Your task to perform on an android device: delete browsing data in the chrome app Image 0: 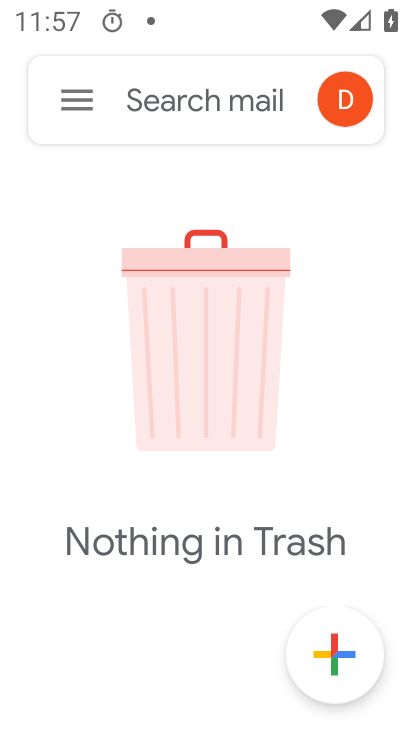
Step 0: press home button
Your task to perform on an android device: delete browsing data in the chrome app Image 1: 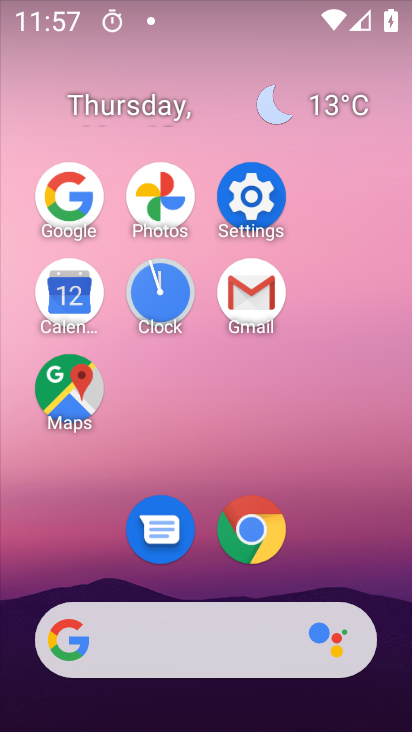
Step 1: click (262, 548)
Your task to perform on an android device: delete browsing data in the chrome app Image 2: 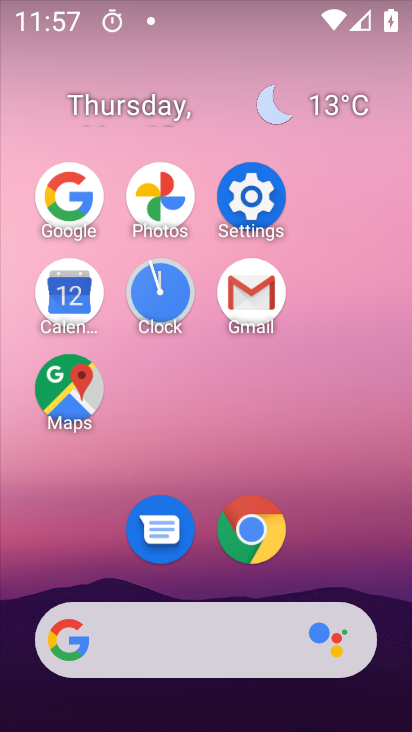
Step 2: click (255, 538)
Your task to perform on an android device: delete browsing data in the chrome app Image 3: 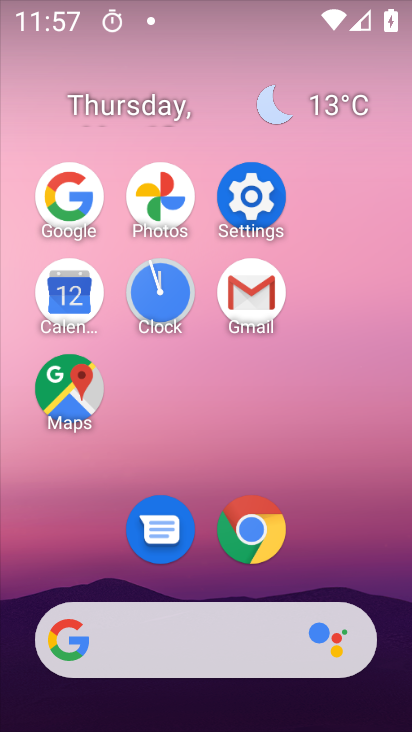
Step 3: click (245, 528)
Your task to perform on an android device: delete browsing data in the chrome app Image 4: 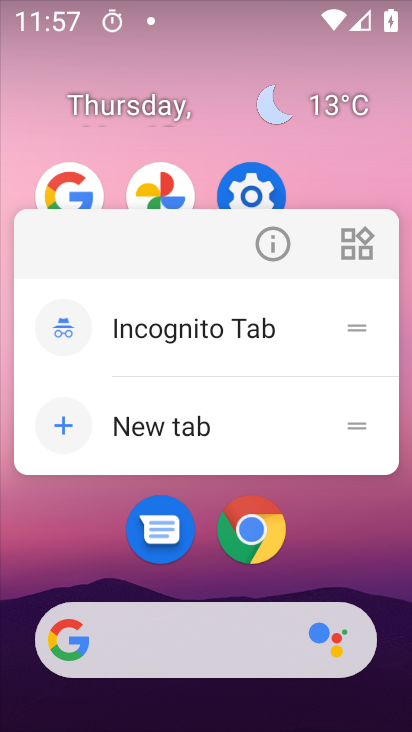
Step 4: click (254, 524)
Your task to perform on an android device: delete browsing data in the chrome app Image 5: 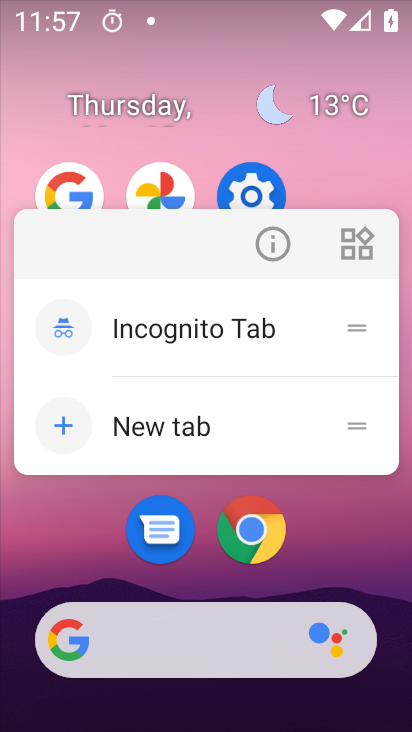
Step 5: click (254, 524)
Your task to perform on an android device: delete browsing data in the chrome app Image 6: 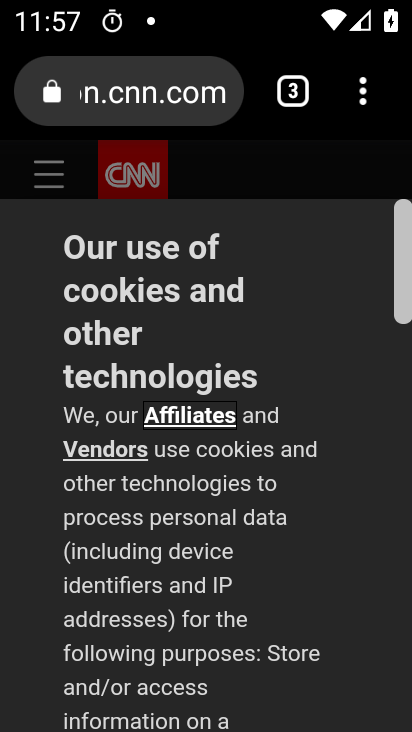
Step 6: click (360, 88)
Your task to perform on an android device: delete browsing data in the chrome app Image 7: 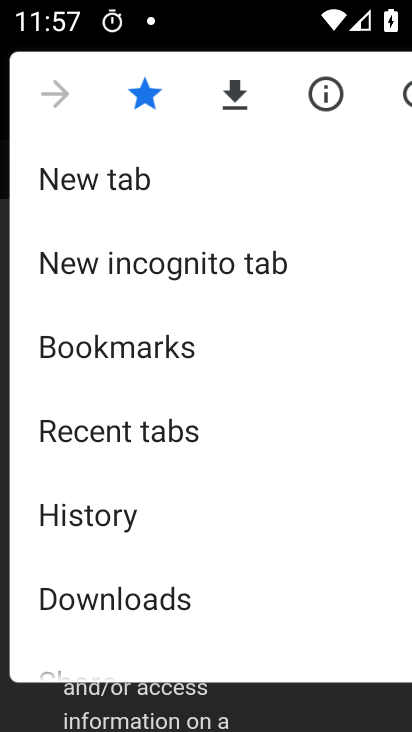
Step 7: drag from (266, 567) to (264, 76)
Your task to perform on an android device: delete browsing data in the chrome app Image 8: 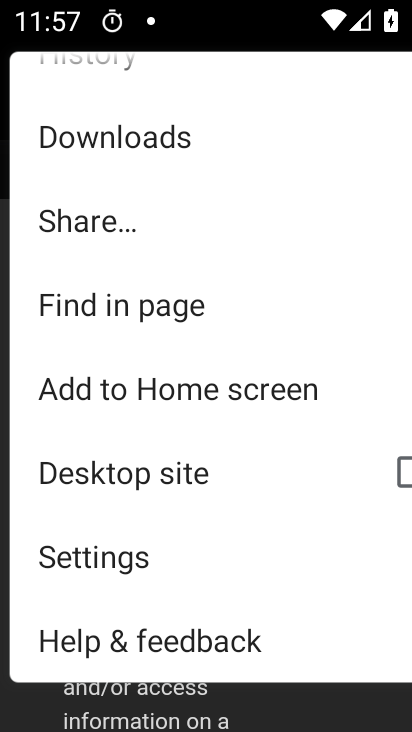
Step 8: click (232, 569)
Your task to perform on an android device: delete browsing data in the chrome app Image 9: 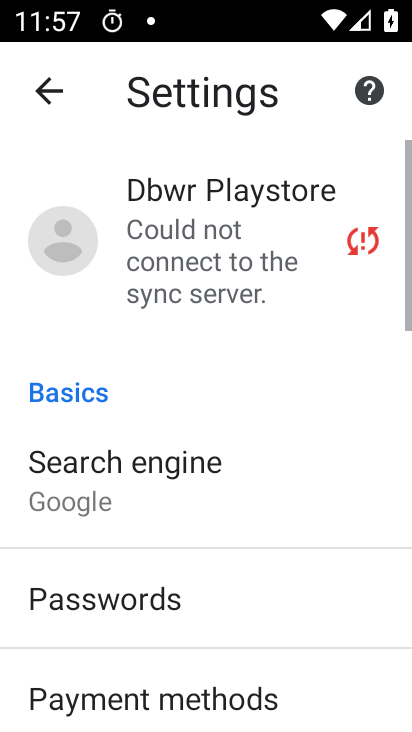
Step 9: drag from (232, 566) to (236, 133)
Your task to perform on an android device: delete browsing data in the chrome app Image 10: 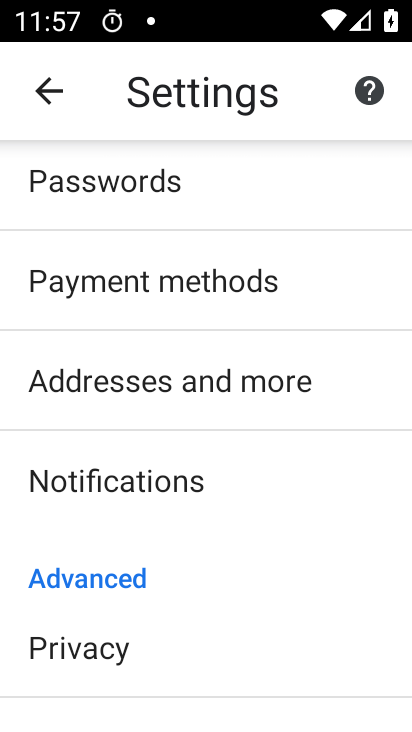
Step 10: click (165, 649)
Your task to perform on an android device: delete browsing data in the chrome app Image 11: 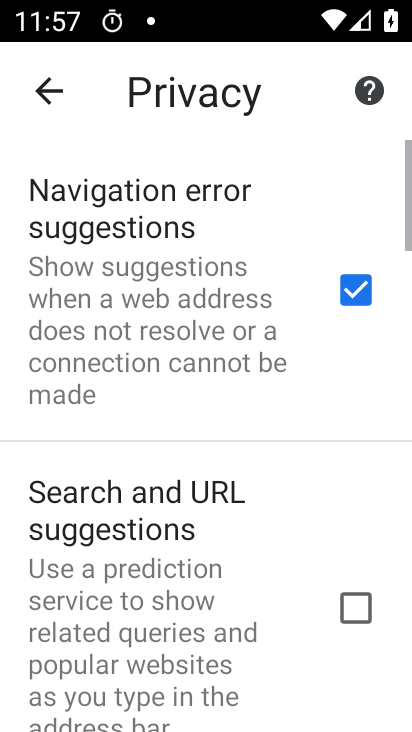
Step 11: drag from (165, 649) to (201, 124)
Your task to perform on an android device: delete browsing data in the chrome app Image 12: 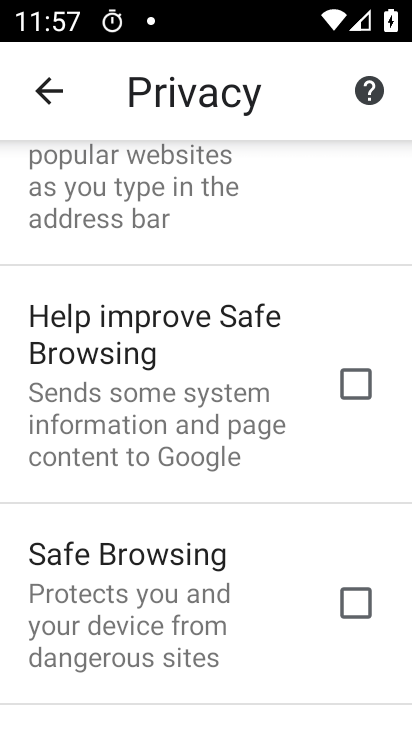
Step 12: drag from (232, 621) to (224, 121)
Your task to perform on an android device: delete browsing data in the chrome app Image 13: 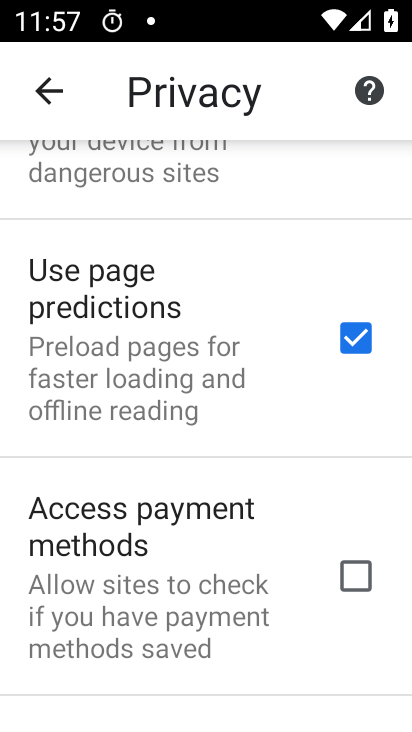
Step 13: drag from (226, 632) to (236, 159)
Your task to perform on an android device: delete browsing data in the chrome app Image 14: 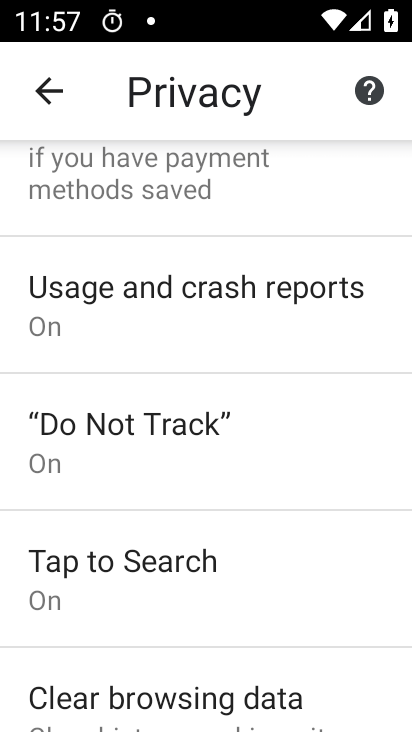
Step 14: drag from (240, 580) to (218, 188)
Your task to perform on an android device: delete browsing data in the chrome app Image 15: 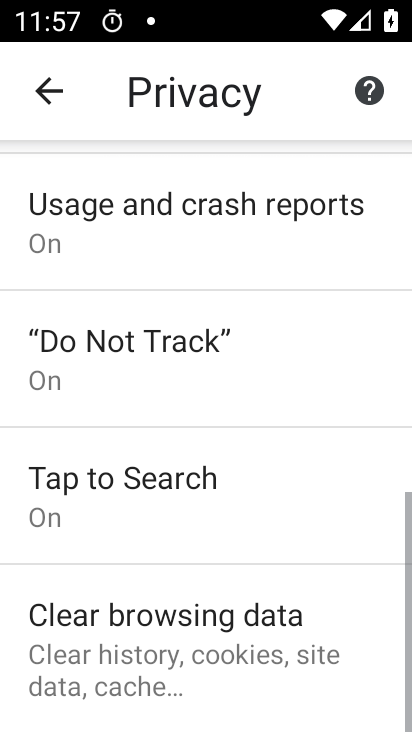
Step 15: click (261, 633)
Your task to perform on an android device: delete browsing data in the chrome app Image 16: 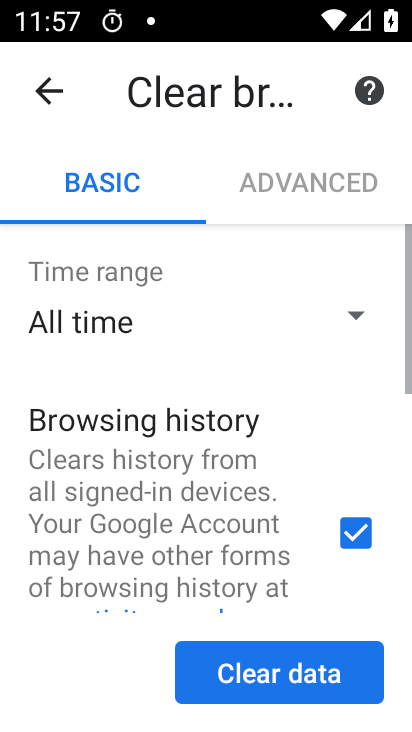
Step 16: drag from (281, 591) to (271, 229)
Your task to perform on an android device: delete browsing data in the chrome app Image 17: 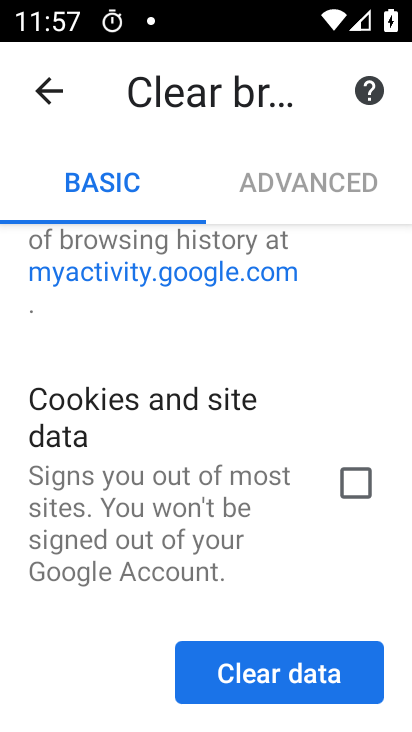
Step 17: drag from (248, 336) to (252, 519)
Your task to perform on an android device: delete browsing data in the chrome app Image 18: 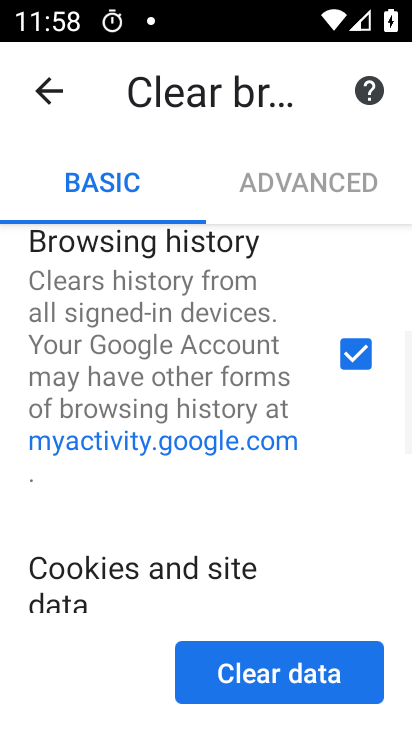
Step 18: click (286, 675)
Your task to perform on an android device: delete browsing data in the chrome app Image 19: 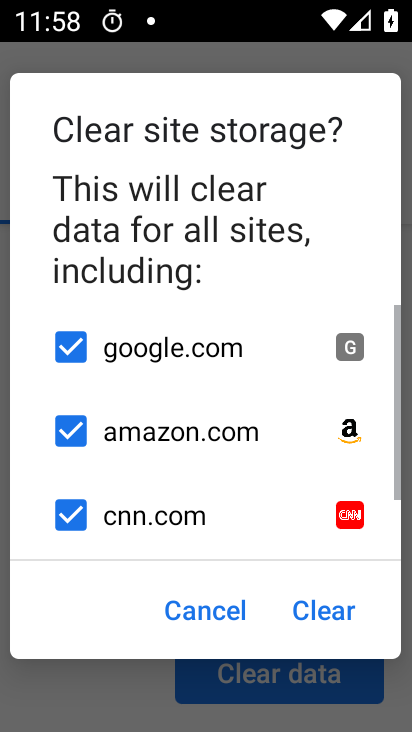
Step 19: click (335, 611)
Your task to perform on an android device: delete browsing data in the chrome app Image 20: 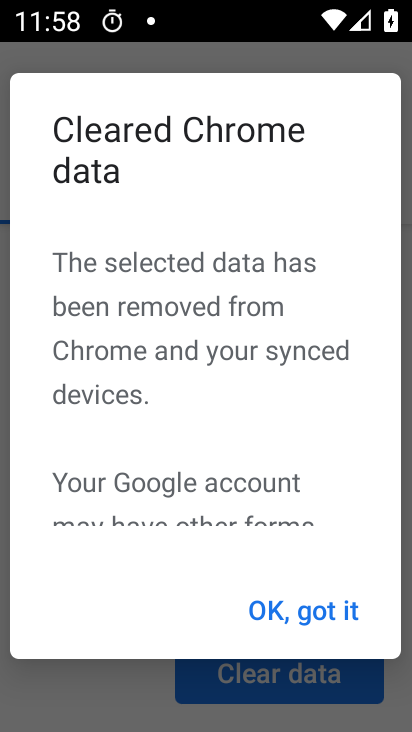
Step 20: click (342, 608)
Your task to perform on an android device: delete browsing data in the chrome app Image 21: 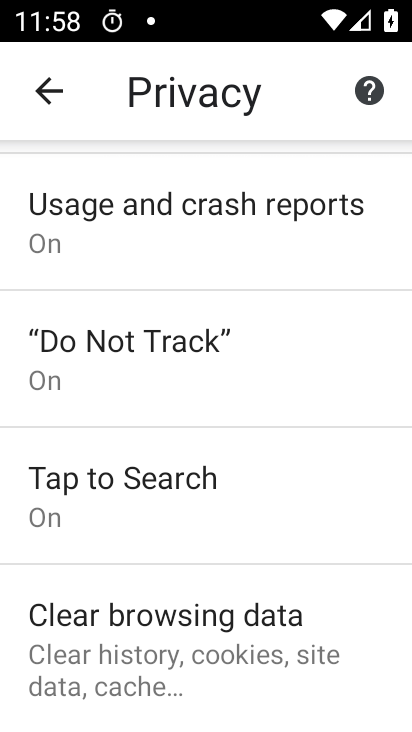
Step 21: task complete